Your task to perform on an android device: turn off picture-in-picture Image 0: 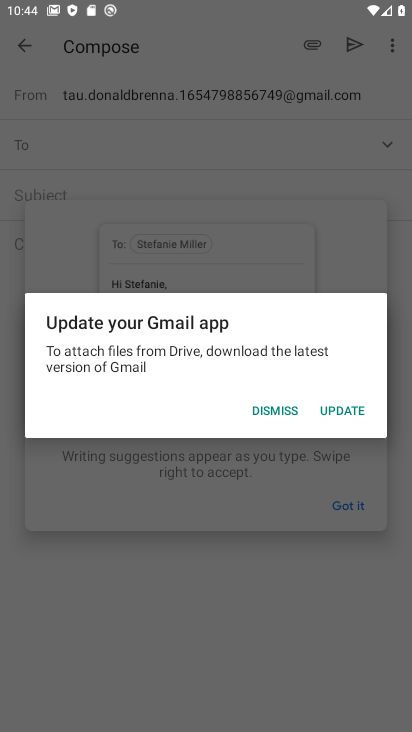
Step 0: press home button
Your task to perform on an android device: turn off picture-in-picture Image 1: 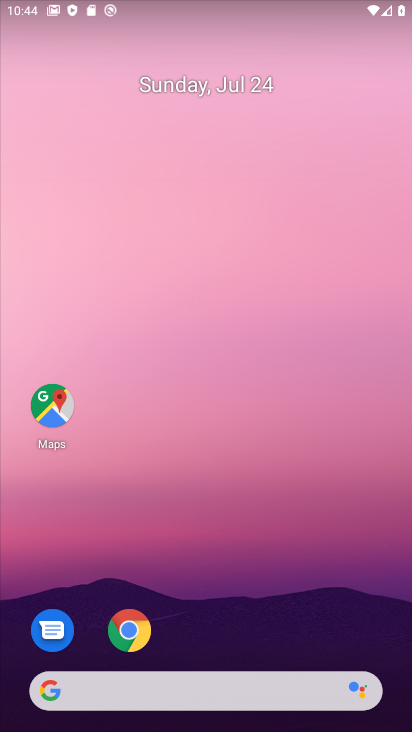
Step 1: drag from (184, 612) to (178, 251)
Your task to perform on an android device: turn off picture-in-picture Image 2: 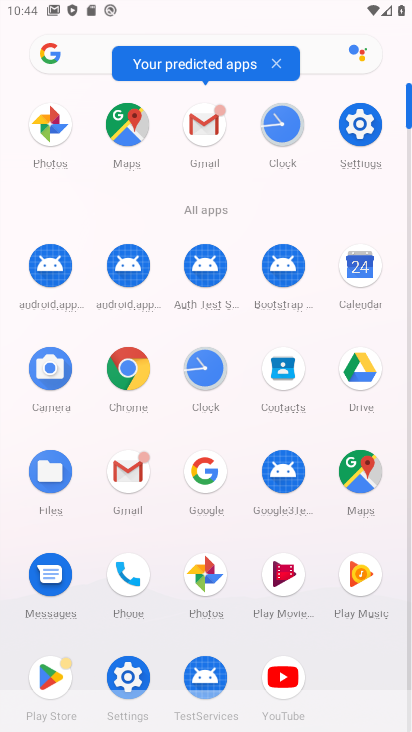
Step 2: click (352, 121)
Your task to perform on an android device: turn off picture-in-picture Image 3: 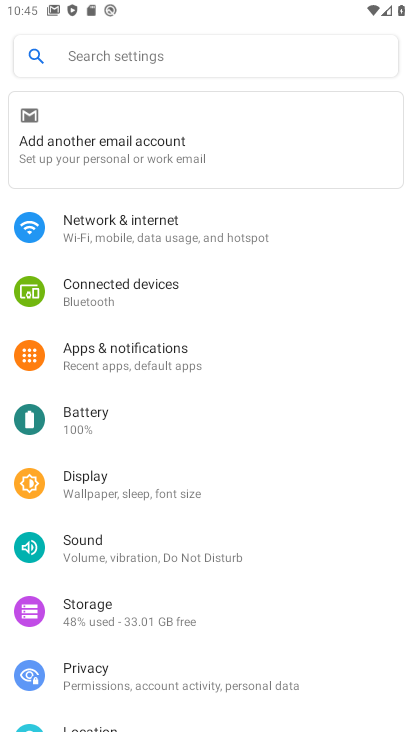
Step 3: click (56, 373)
Your task to perform on an android device: turn off picture-in-picture Image 4: 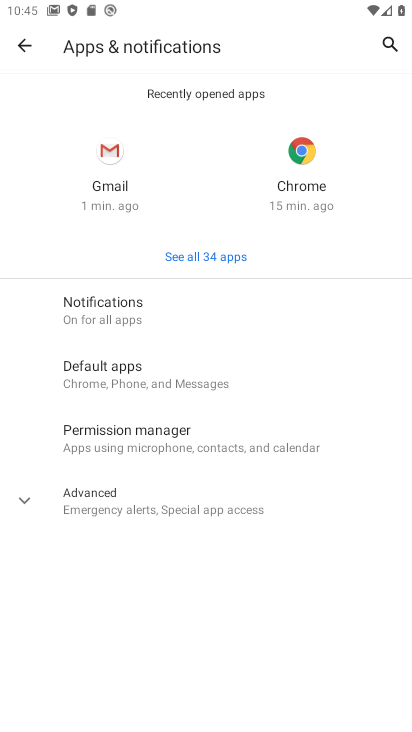
Step 4: click (76, 502)
Your task to perform on an android device: turn off picture-in-picture Image 5: 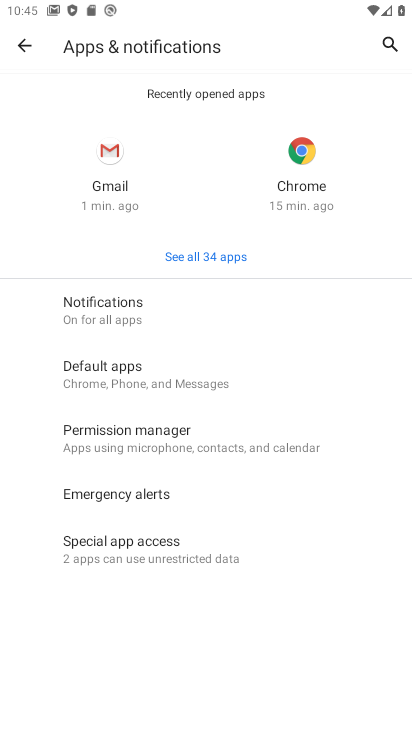
Step 5: click (76, 549)
Your task to perform on an android device: turn off picture-in-picture Image 6: 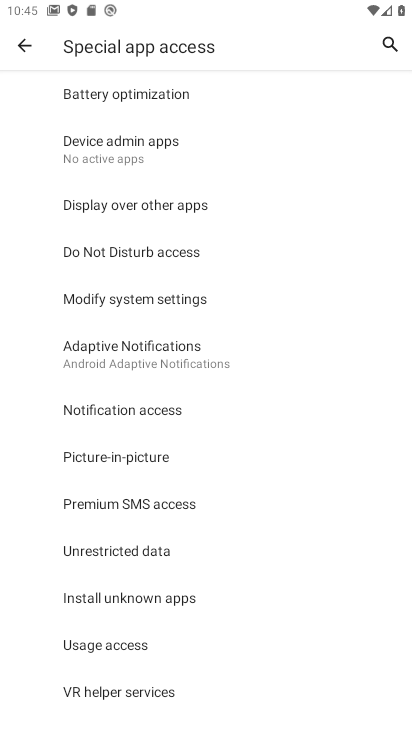
Step 6: click (131, 458)
Your task to perform on an android device: turn off picture-in-picture Image 7: 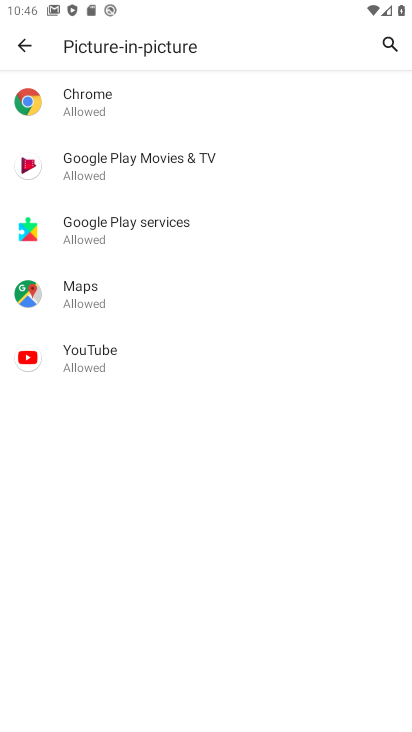
Step 7: click (76, 108)
Your task to perform on an android device: turn off picture-in-picture Image 8: 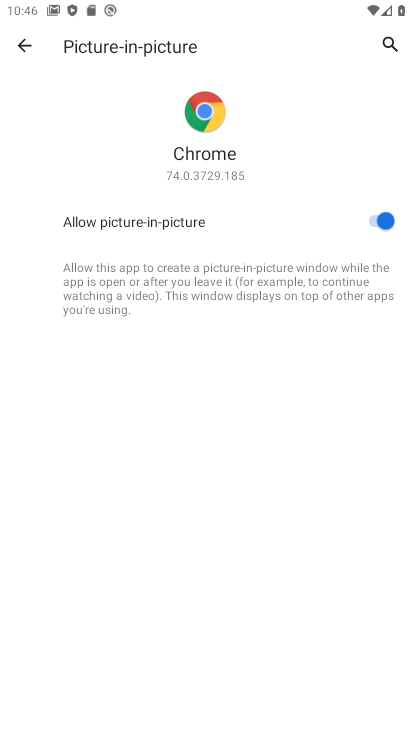
Step 8: click (375, 225)
Your task to perform on an android device: turn off picture-in-picture Image 9: 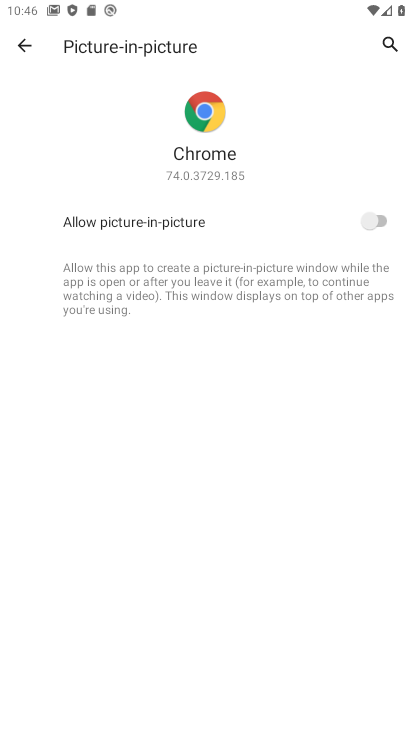
Step 9: task complete